Your task to perform on an android device: Open sound settings Image 0: 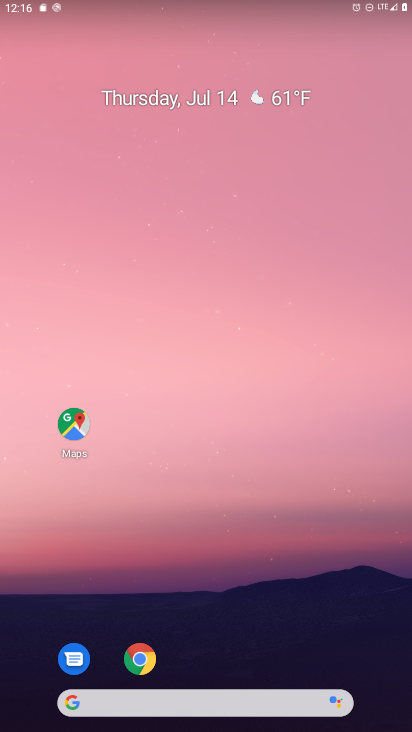
Step 0: drag from (306, 645) to (238, 15)
Your task to perform on an android device: Open sound settings Image 1: 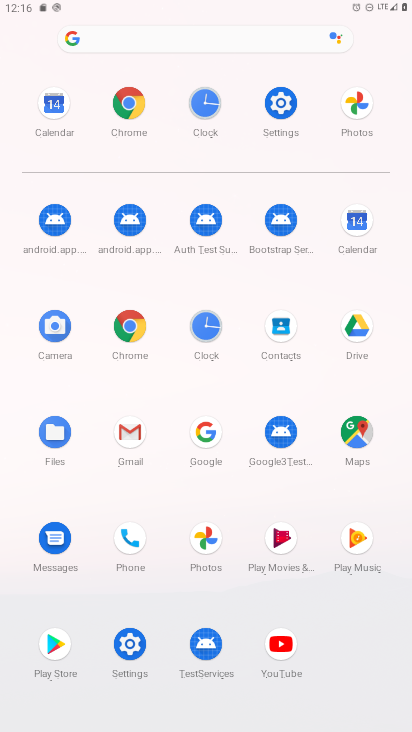
Step 1: click (129, 643)
Your task to perform on an android device: Open sound settings Image 2: 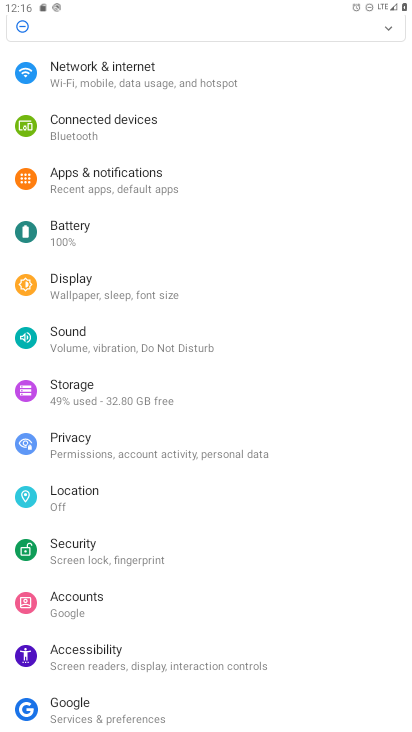
Step 2: click (64, 333)
Your task to perform on an android device: Open sound settings Image 3: 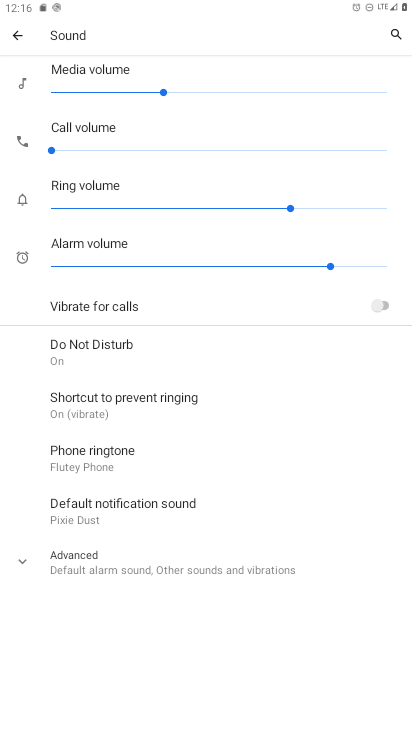
Step 3: click (21, 561)
Your task to perform on an android device: Open sound settings Image 4: 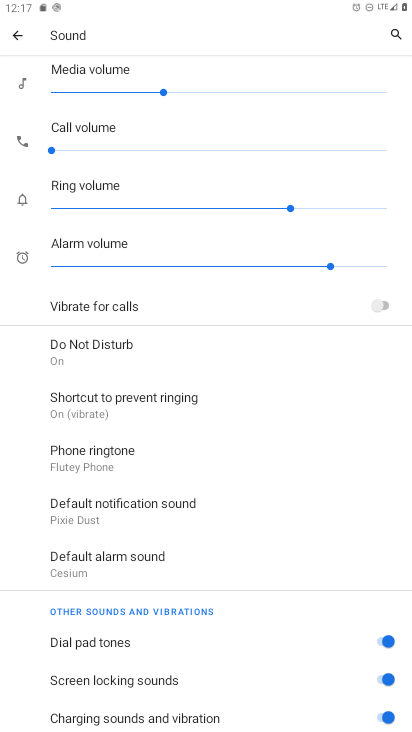
Step 4: task complete